Your task to perform on an android device: change keyboard looks Image 0: 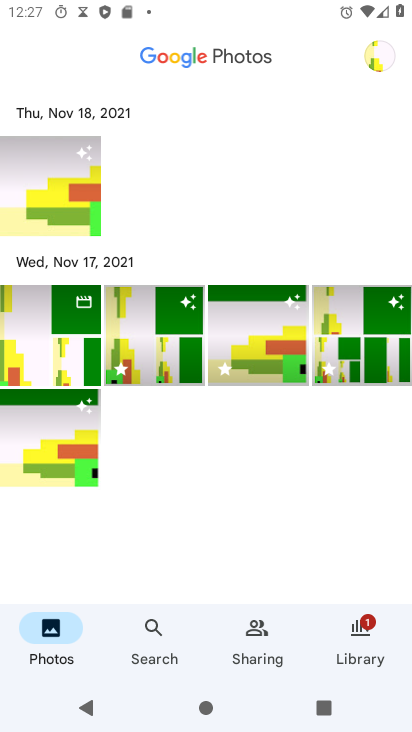
Step 0: press home button
Your task to perform on an android device: change keyboard looks Image 1: 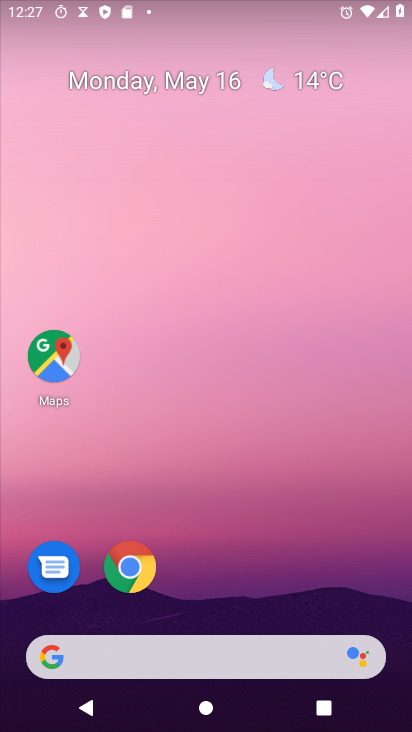
Step 1: drag from (238, 554) to (242, 74)
Your task to perform on an android device: change keyboard looks Image 2: 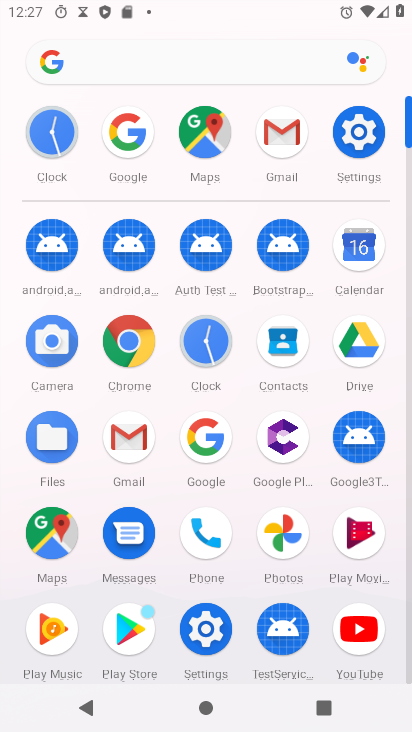
Step 2: click (347, 138)
Your task to perform on an android device: change keyboard looks Image 3: 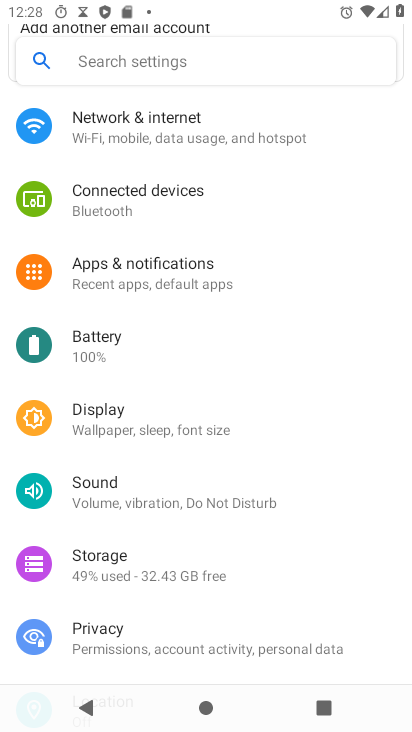
Step 3: drag from (139, 602) to (245, 232)
Your task to perform on an android device: change keyboard looks Image 4: 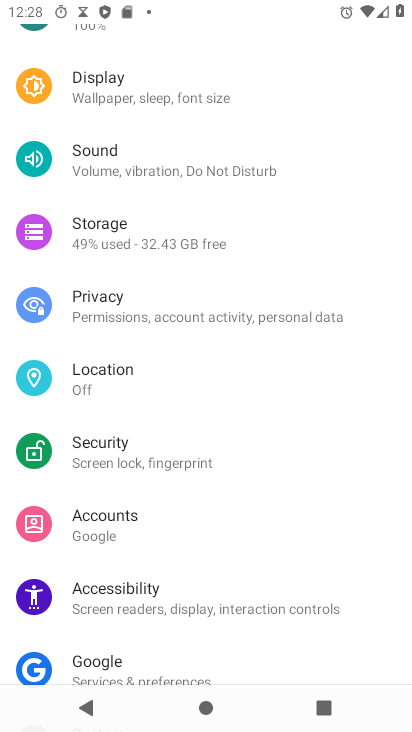
Step 4: drag from (179, 596) to (272, 304)
Your task to perform on an android device: change keyboard looks Image 5: 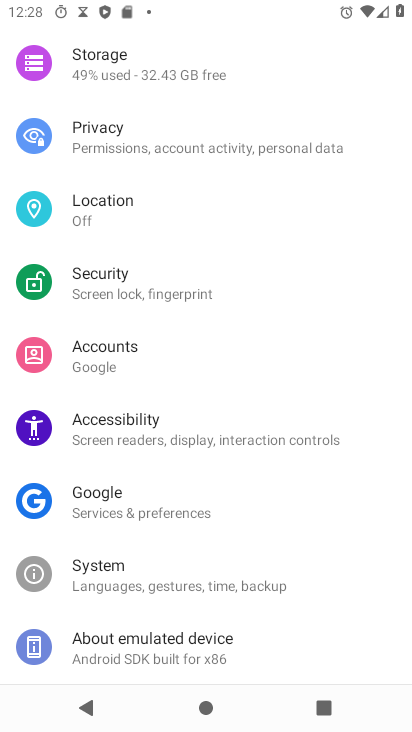
Step 5: click (138, 592)
Your task to perform on an android device: change keyboard looks Image 6: 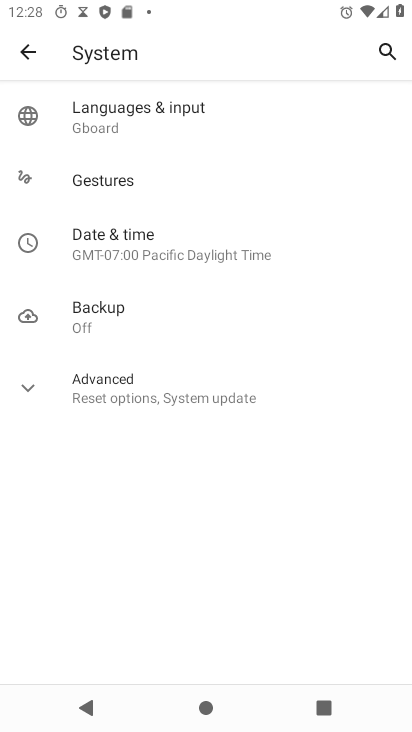
Step 6: click (98, 112)
Your task to perform on an android device: change keyboard looks Image 7: 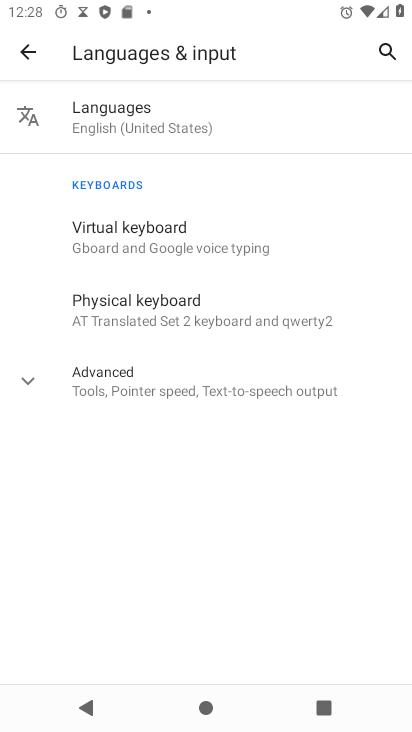
Step 7: click (144, 231)
Your task to perform on an android device: change keyboard looks Image 8: 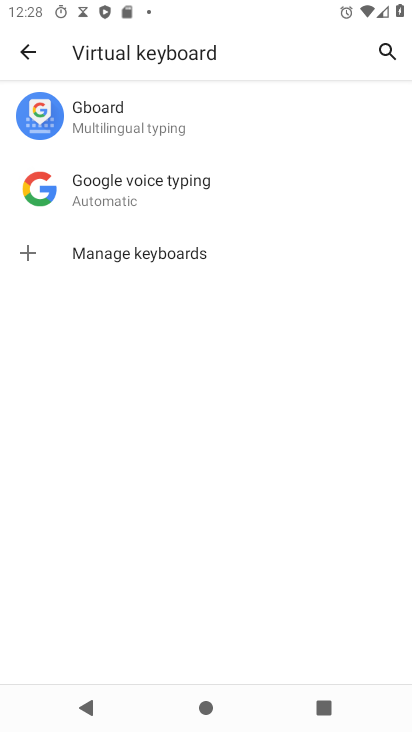
Step 8: click (128, 138)
Your task to perform on an android device: change keyboard looks Image 9: 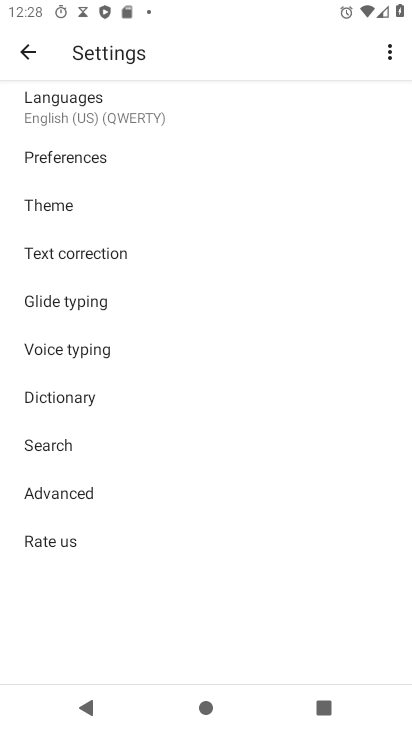
Step 9: click (73, 196)
Your task to perform on an android device: change keyboard looks Image 10: 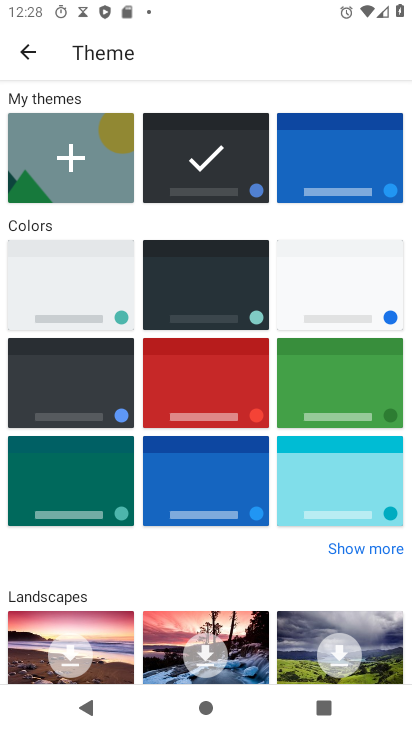
Step 10: click (208, 475)
Your task to perform on an android device: change keyboard looks Image 11: 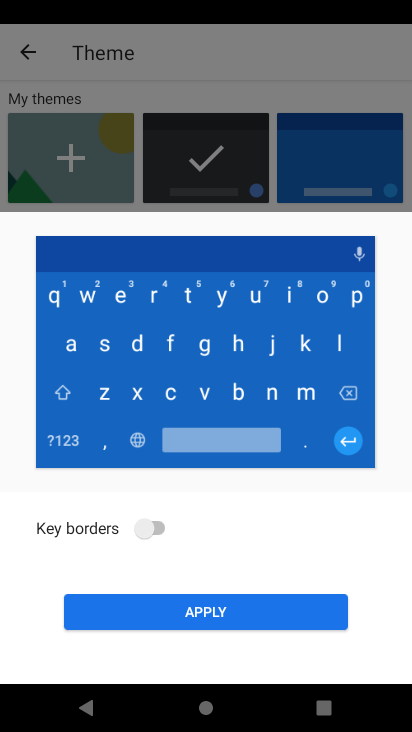
Step 11: click (213, 606)
Your task to perform on an android device: change keyboard looks Image 12: 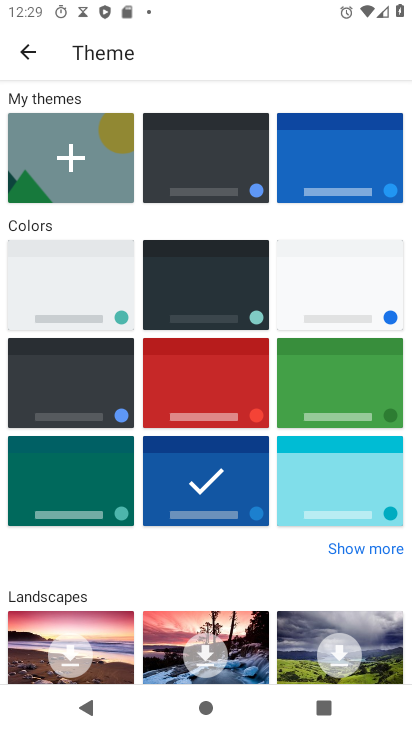
Step 12: task complete